Your task to perform on an android device: Open Chrome and go to the settings page Image 0: 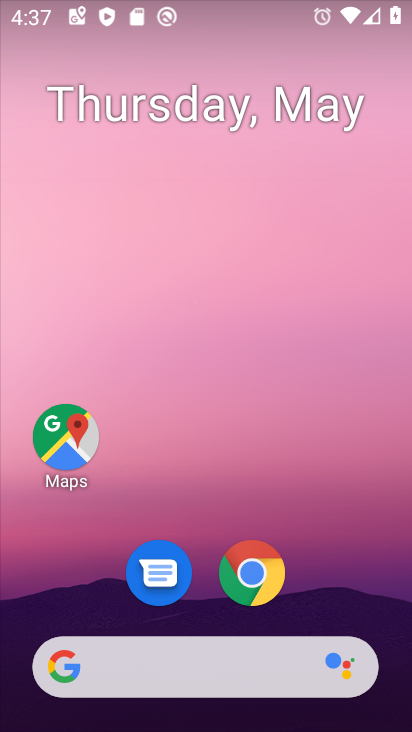
Step 0: click (255, 579)
Your task to perform on an android device: Open Chrome and go to the settings page Image 1: 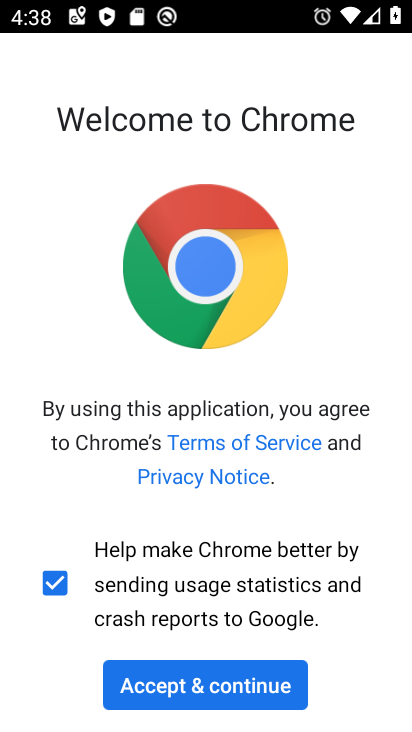
Step 1: click (181, 694)
Your task to perform on an android device: Open Chrome and go to the settings page Image 2: 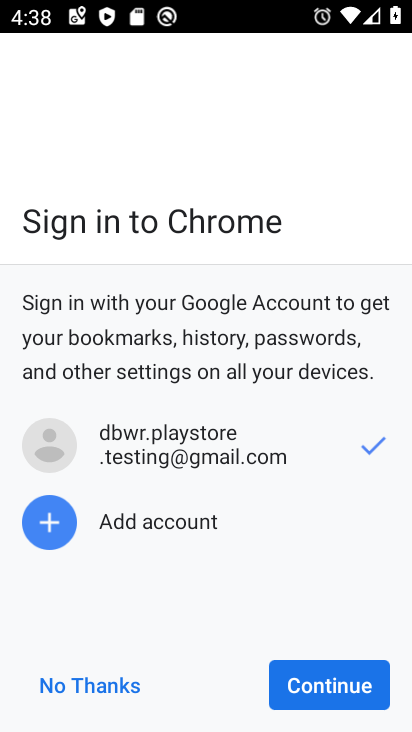
Step 2: click (333, 692)
Your task to perform on an android device: Open Chrome and go to the settings page Image 3: 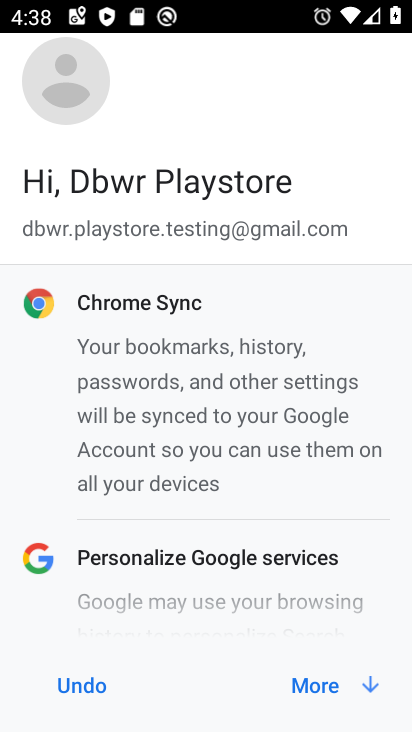
Step 3: click (323, 692)
Your task to perform on an android device: Open Chrome and go to the settings page Image 4: 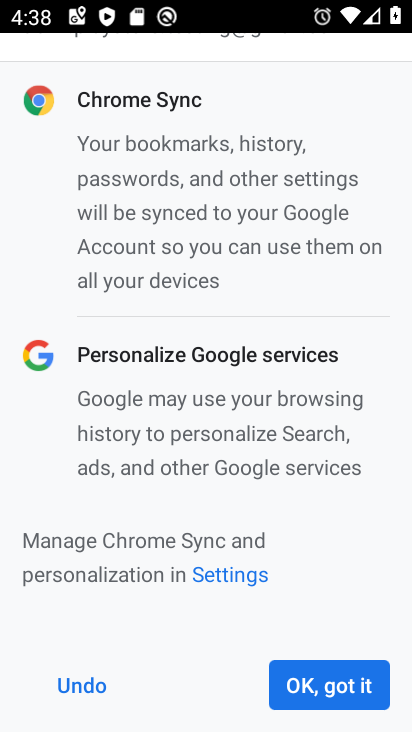
Step 4: click (319, 690)
Your task to perform on an android device: Open Chrome and go to the settings page Image 5: 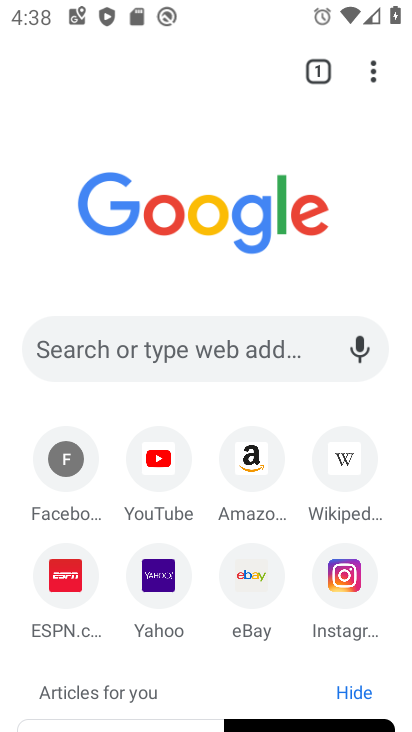
Step 5: click (375, 79)
Your task to perform on an android device: Open Chrome and go to the settings page Image 6: 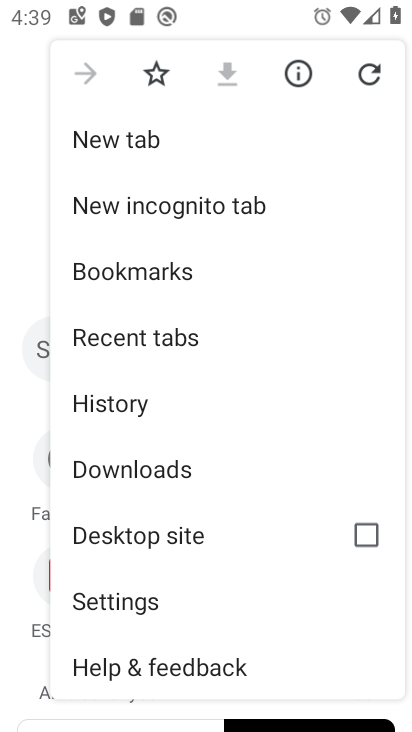
Step 6: click (139, 610)
Your task to perform on an android device: Open Chrome and go to the settings page Image 7: 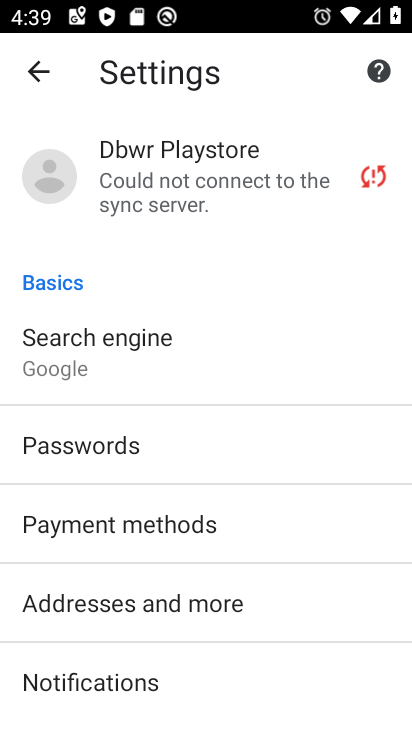
Step 7: task complete